Your task to perform on an android device: turn pop-ups off in chrome Image 0: 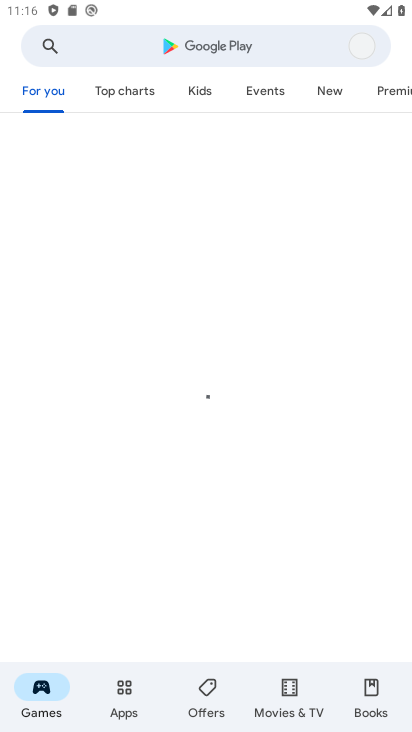
Step 0: press home button
Your task to perform on an android device: turn pop-ups off in chrome Image 1: 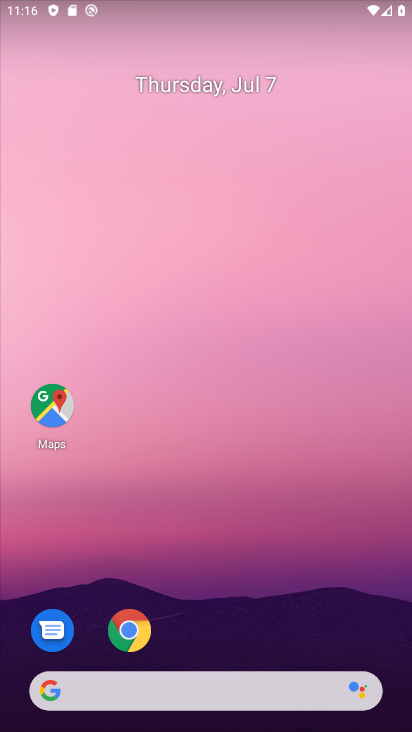
Step 1: click (131, 631)
Your task to perform on an android device: turn pop-ups off in chrome Image 2: 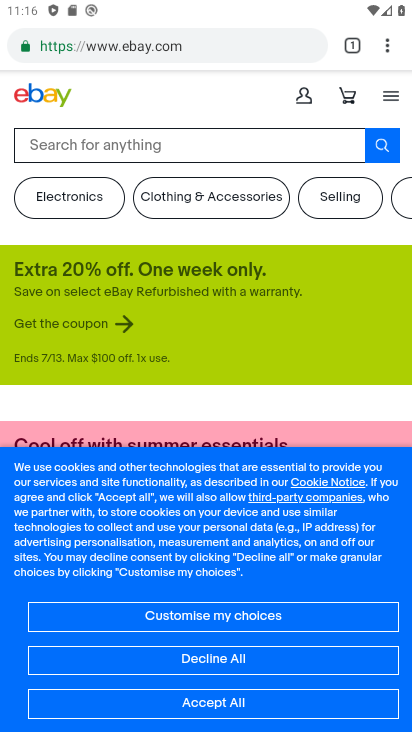
Step 2: click (388, 51)
Your task to perform on an android device: turn pop-ups off in chrome Image 3: 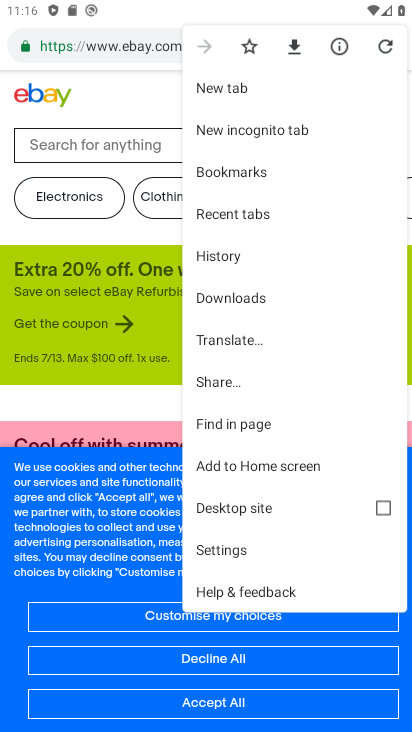
Step 3: click (219, 550)
Your task to perform on an android device: turn pop-ups off in chrome Image 4: 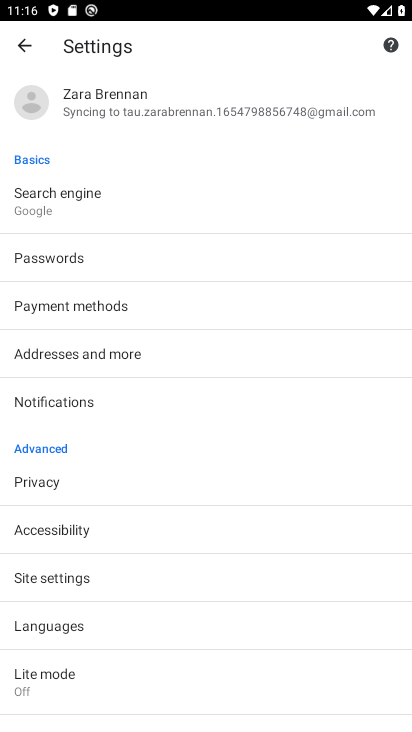
Step 4: click (52, 569)
Your task to perform on an android device: turn pop-ups off in chrome Image 5: 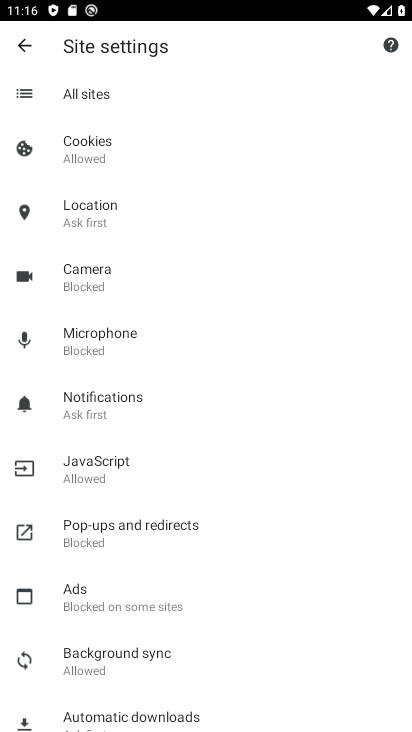
Step 5: click (106, 528)
Your task to perform on an android device: turn pop-ups off in chrome Image 6: 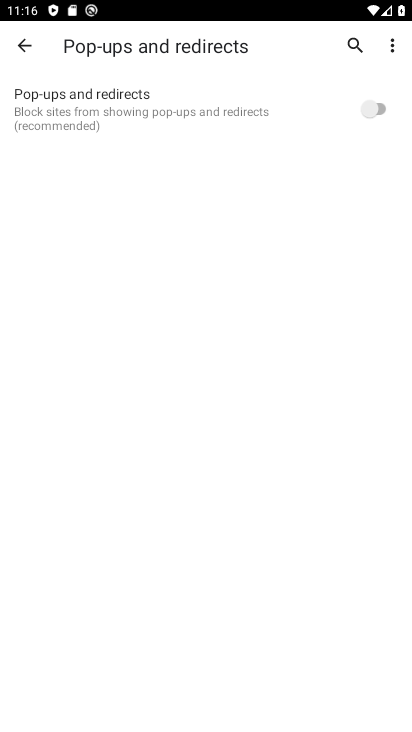
Step 6: task complete